Your task to perform on an android device: toggle data saver in the chrome app Image 0: 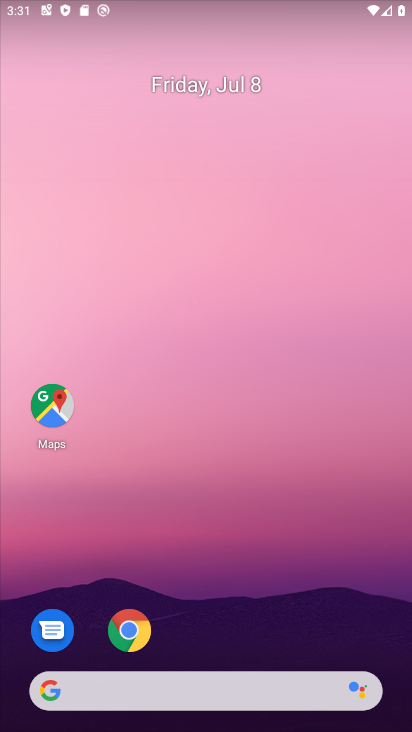
Step 0: click (118, 639)
Your task to perform on an android device: toggle data saver in the chrome app Image 1: 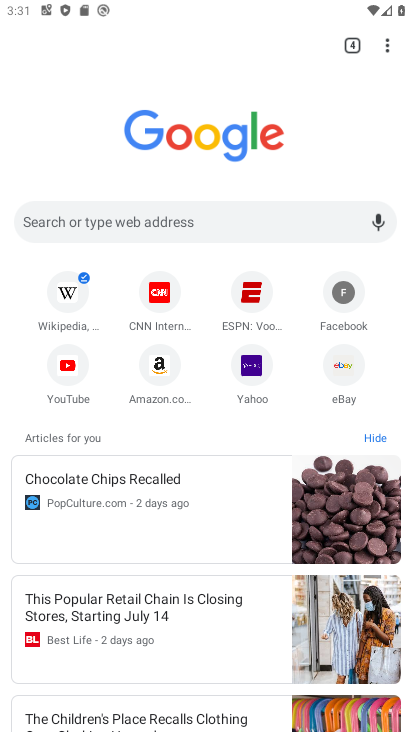
Step 1: click (380, 53)
Your task to perform on an android device: toggle data saver in the chrome app Image 2: 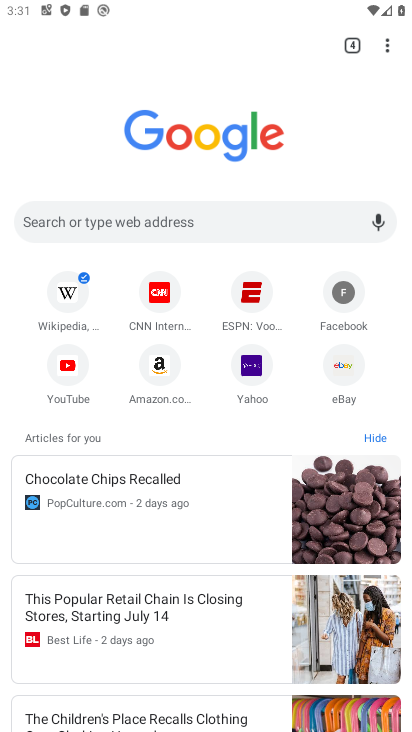
Step 2: click (380, 49)
Your task to perform on an android device: toggle data saver in the chrome app Image 3: 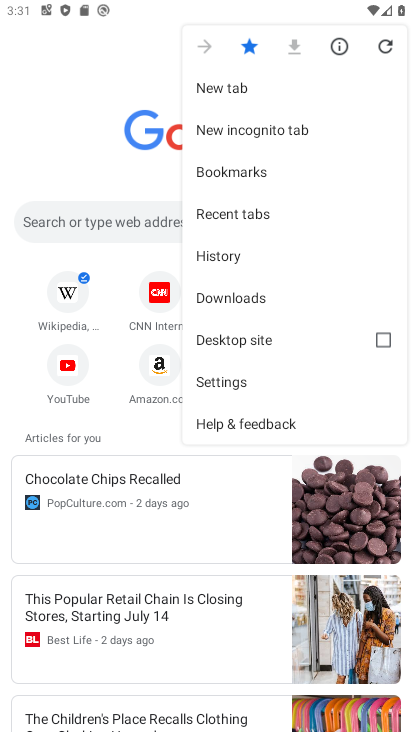
Step 3: click (271, 378)
Your task to perform on an android device: toggle data saver in the chrome app Image 4: 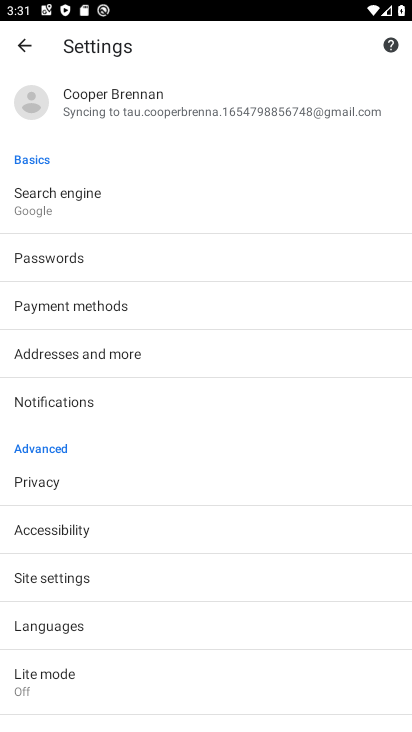
Step 4: drag from (82, 614) to (131, 371)
Your task to perform on an android device: toggle data saver in the chrome app Image 5: 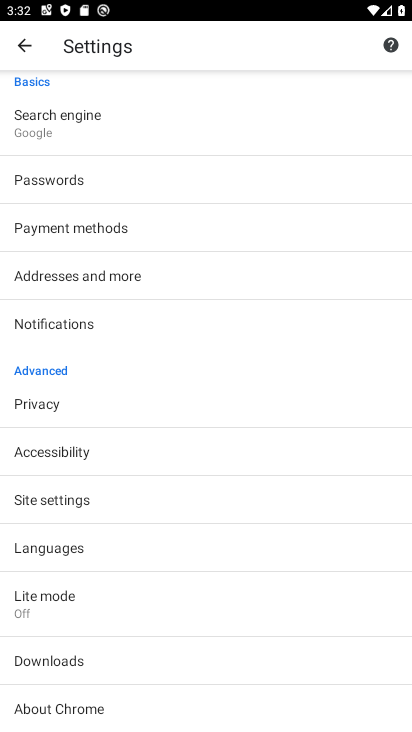
Step 5: click (96, 593)
Your task to perform on an android device: toggle data saver in the chrome app Image 6: 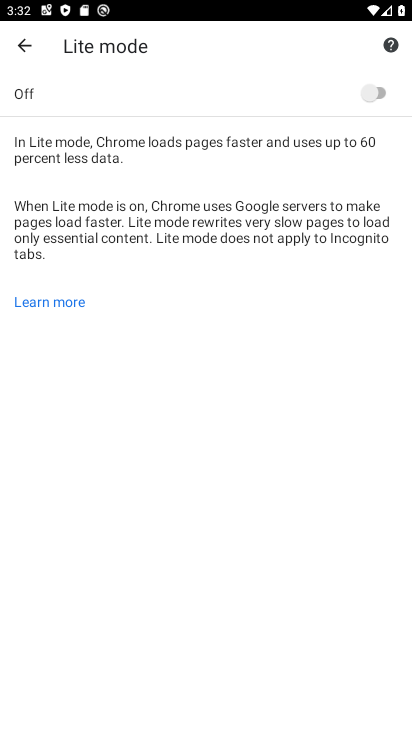
Step 6: click (347, 91)
Your task to perform on an android device: toggle data saver in the chrome app Image 7: 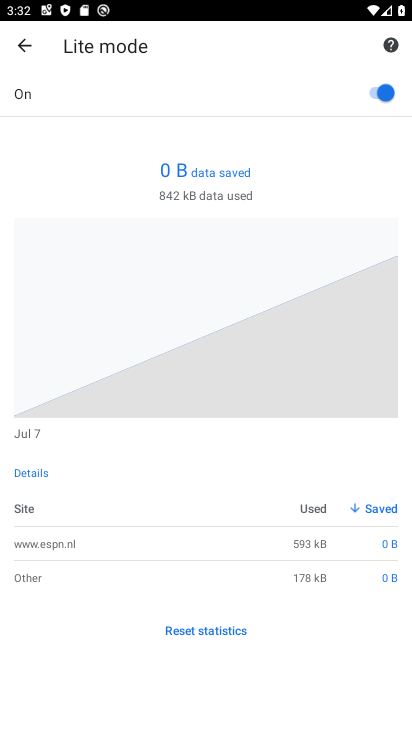
Step 7: task complete